Your task to perform on an android device: Open notification settings Image 0: 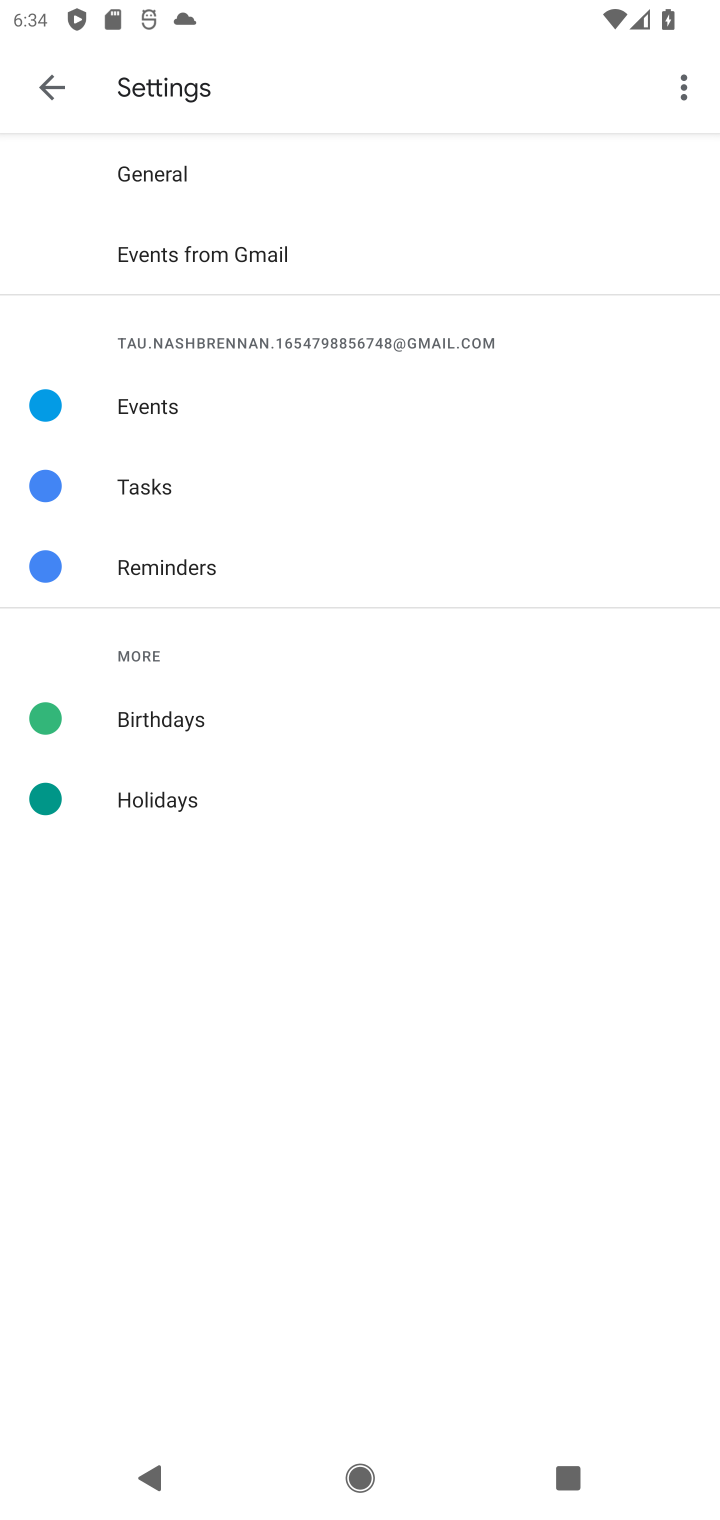
Step 0: press home button
Your task to perform on an android device: Open notification settings Image 1: 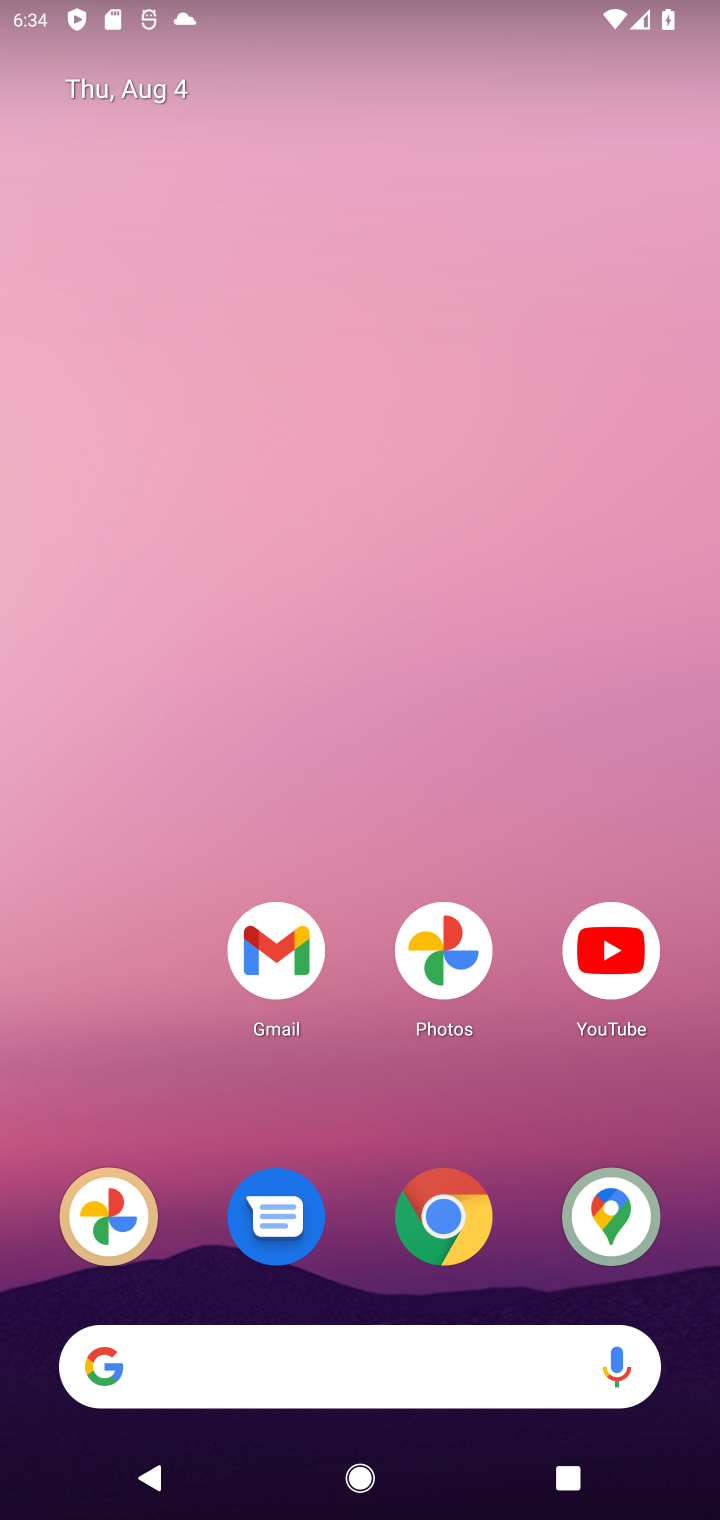
Step 1: drag from (342, 1148) to (438, 372)
Your task to perform on an android device: Open notification settings Image 2: 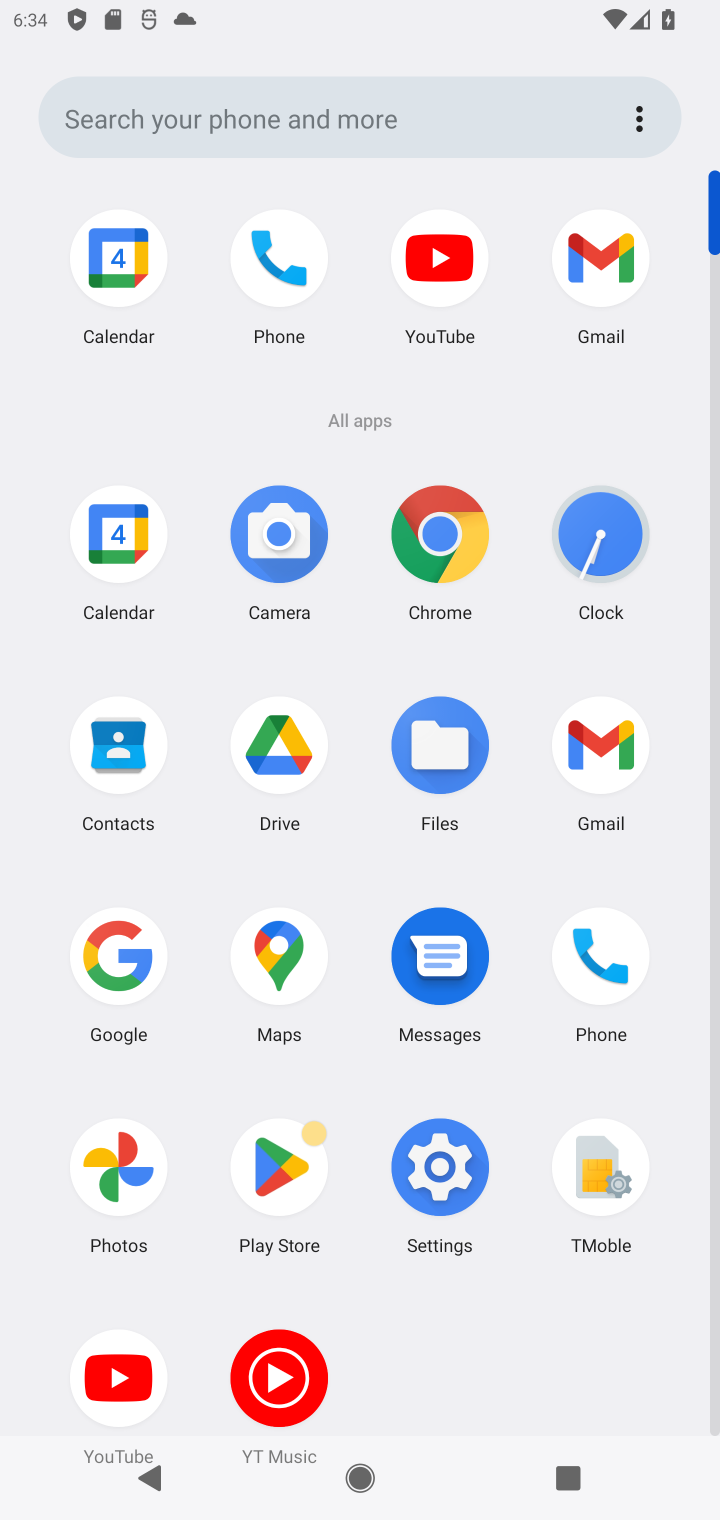
Step 2: click (449, 1181)
Your task to perform on an android device: Open notification settings Image 3: 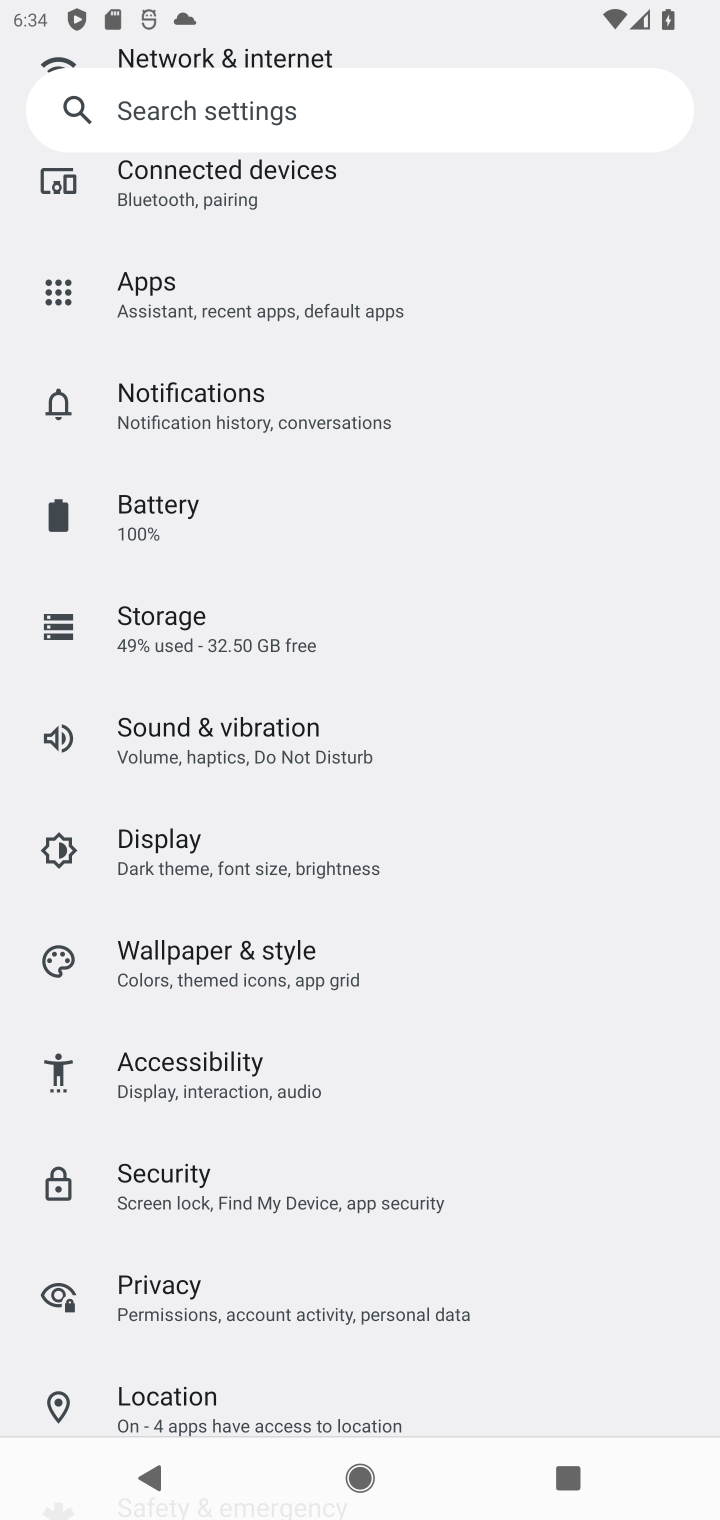
Step 3: click (251, 400)
Your task to perform on an android device: Open notification settings Image 4: 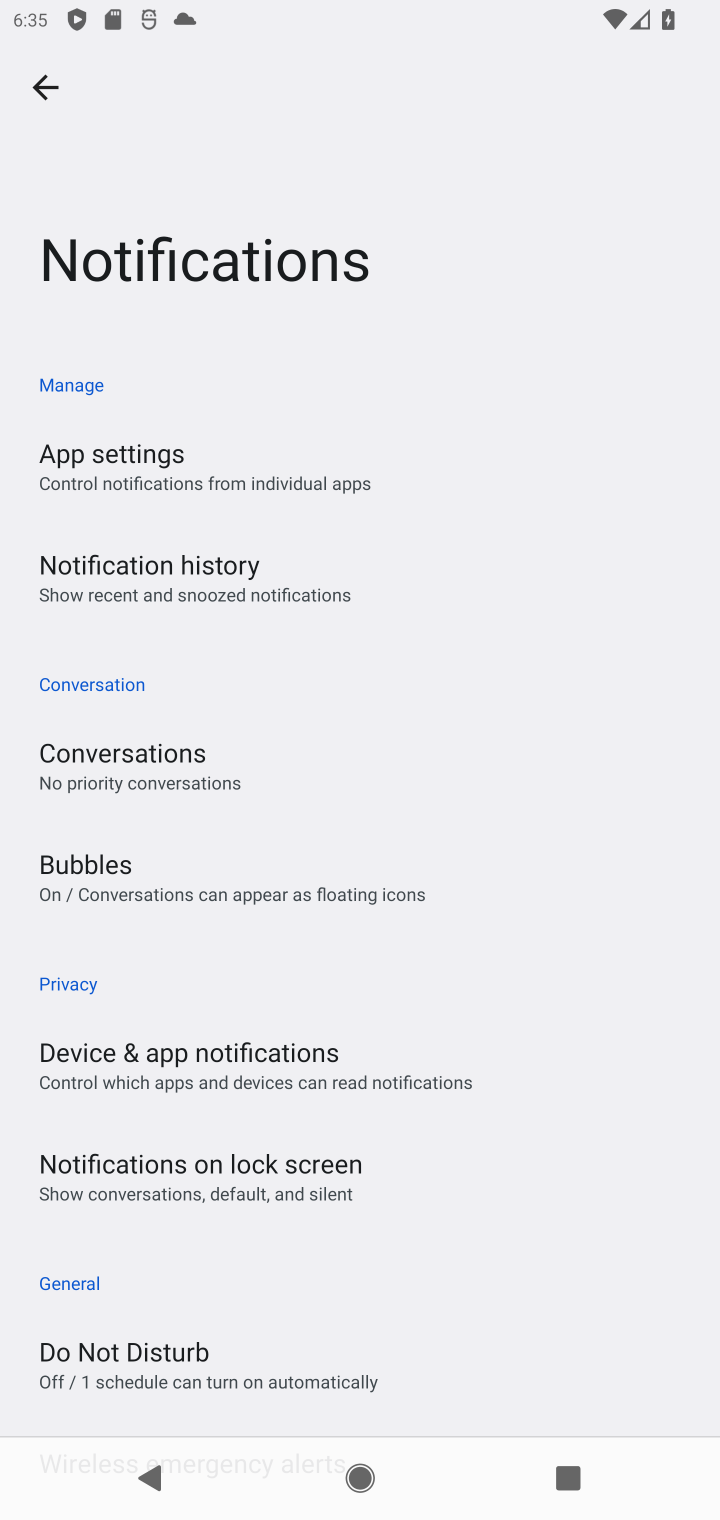
Step 4: task complete